Your task to perform on an android device: toggle sleep mode Image 0: 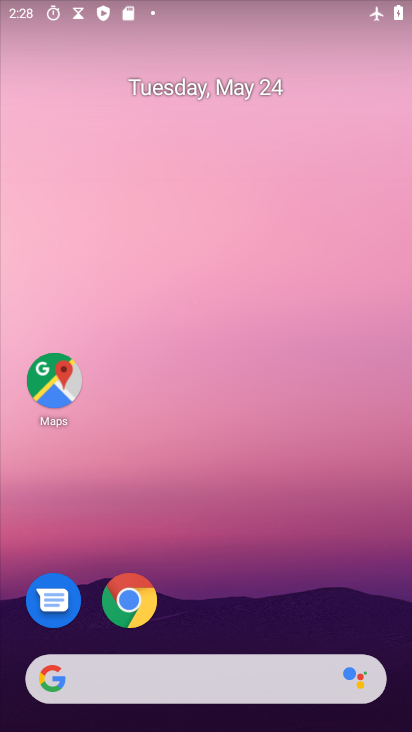
Step 0: click (129, 601)
Your task to perform on an android device: toggle sleep mode Image 1: 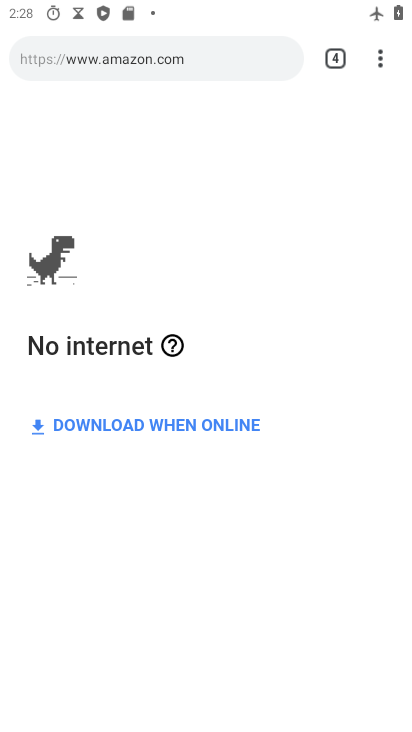
Step 1: press home button
Your task to perform on an android device: toggle sleep mode Image 2: 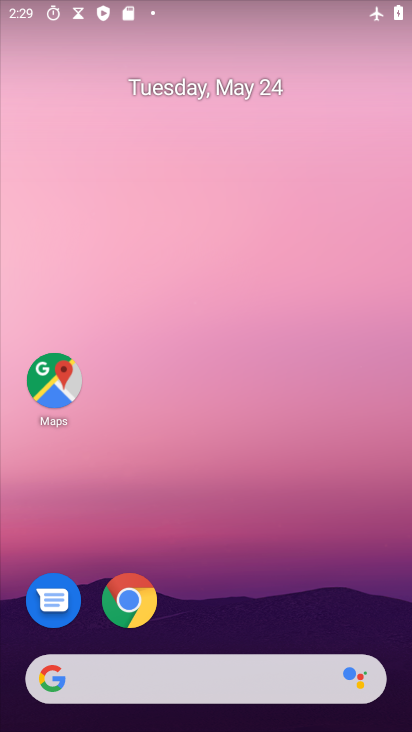
Step 2: drag from (267, 564) to (191, 24)
Your task to perform on an android device: toggle sleep mode Image 3: 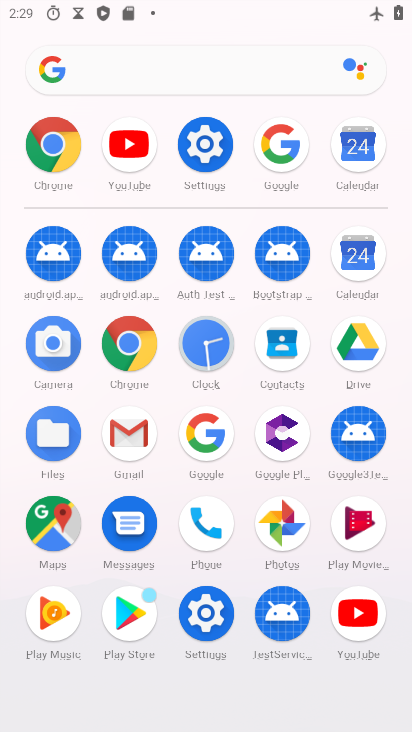
Step 3: click (205, 149)
Your task to perform on an android device: toggle sleep mode Image 4: 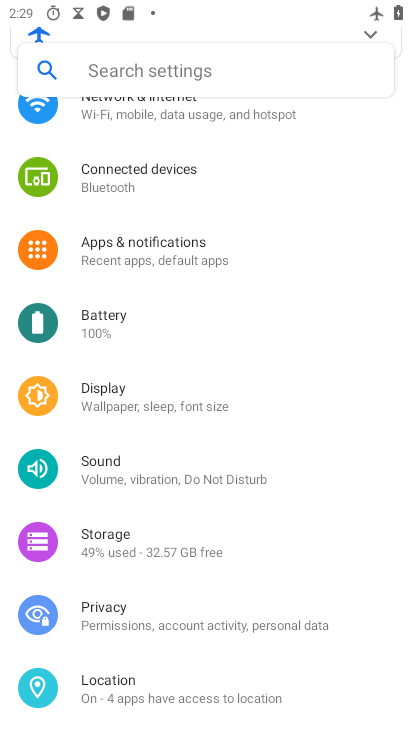
Step 4: click (166, 384)
Your task to perform on an android device: toggle sleep mode Image 5: 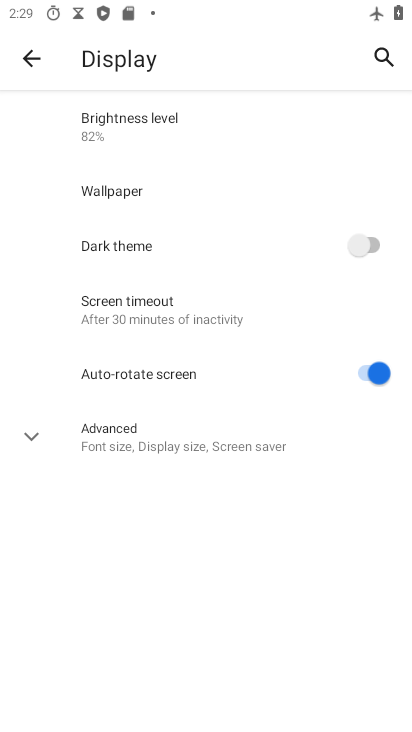
Step 5: task complete